Your task to perform on an android device: allow cookies in the chrome app Image 0: 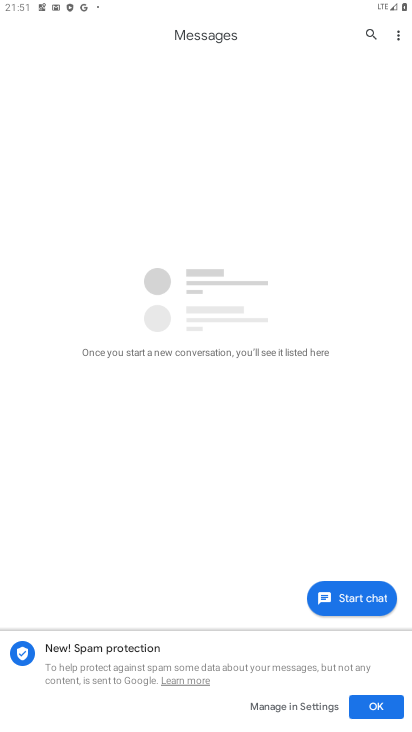
Step 0: press home button
Your task to perform on an android device: allow cookies in the chrome app Image 1: 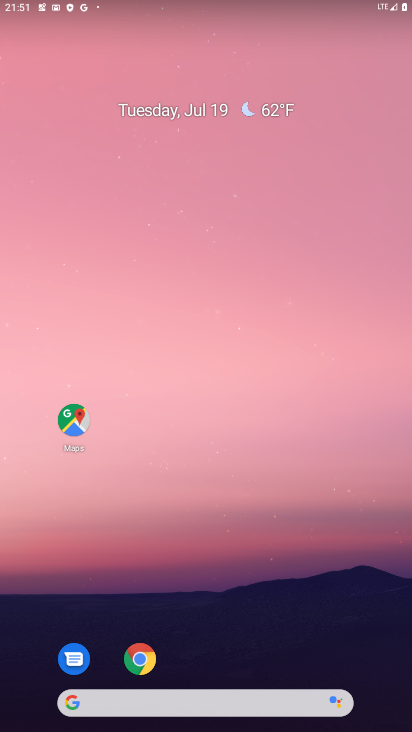
Step 1: drag from (180, 641) to (299, 63)
Your task to perform on an android device: allow cookies in the chrome app Image 2: 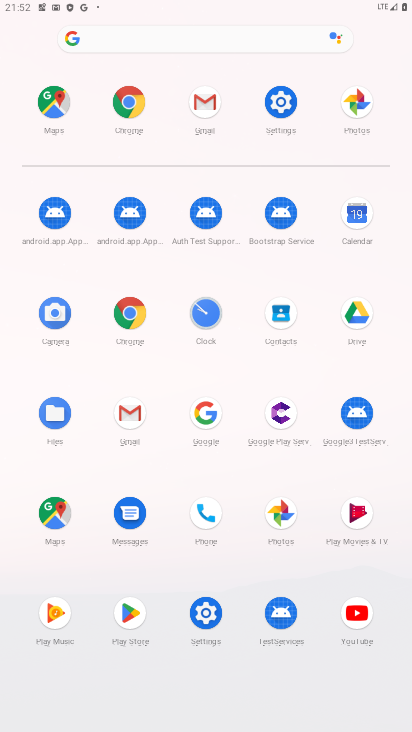
Step 2: click (132, 311)
Your task to perform on an android device: allow cookies in the chrome app Image 3: 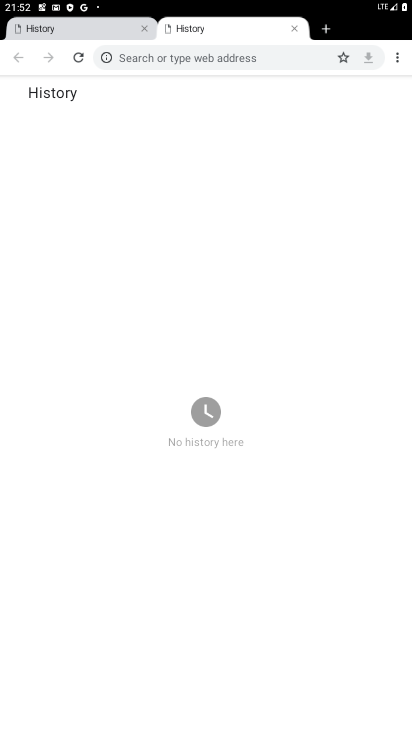
Step 3: click (13, 66)
Your task to perform on an android device: allow cookies in the chrome app Image 4: 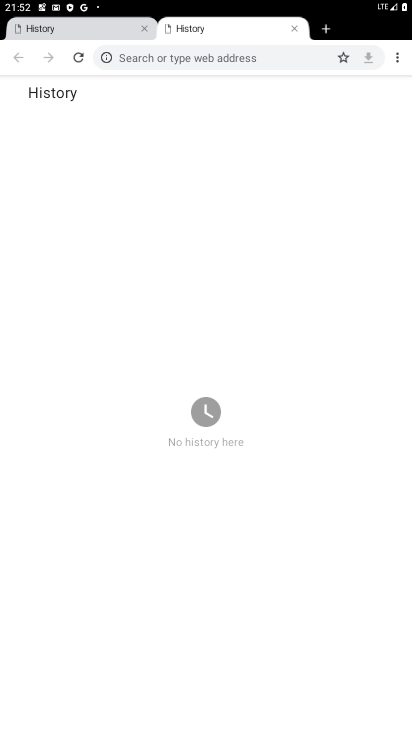
Step 4: press back button
Your task to perform on an android device: allow cookies in the chrome app Image 5: 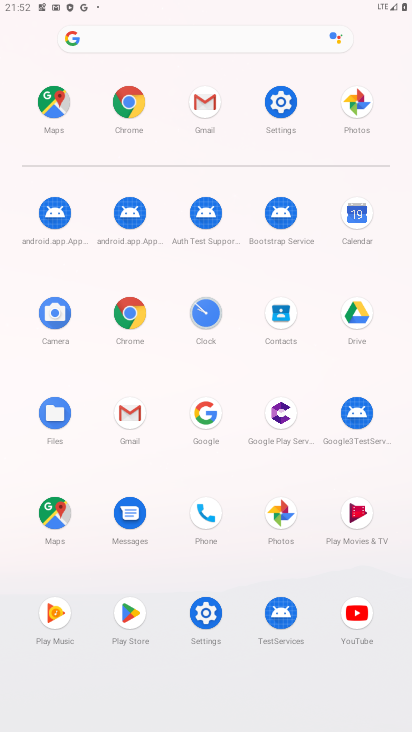
Step 5: click (135, 301)
Your task to perform on an android device: allow cookies in the chrome app Image 6: 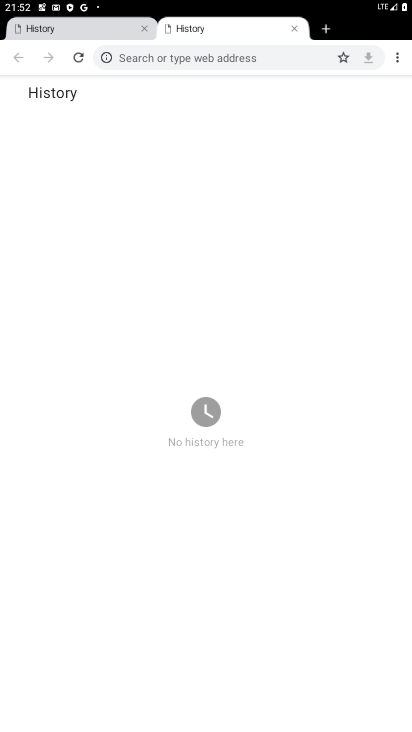
Step 6: click (293, 31)
Your task to perform on an android device: allow cookies in the chrome app Image 7: 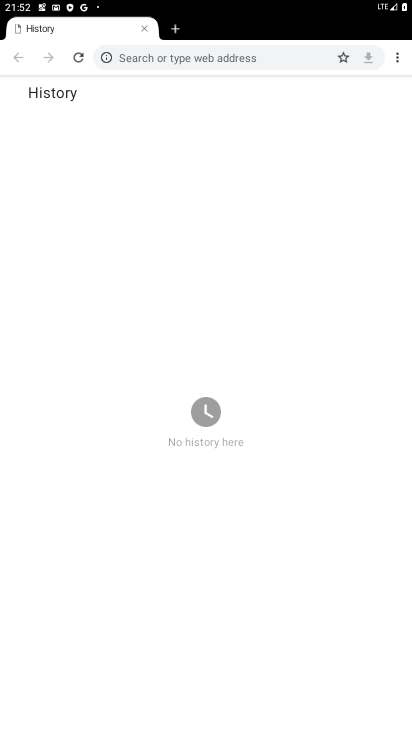
Step 7: drag from (394, 57) to (274, 307)
Your task to perform on an android device: allow cookies in the chrome app Image 8: 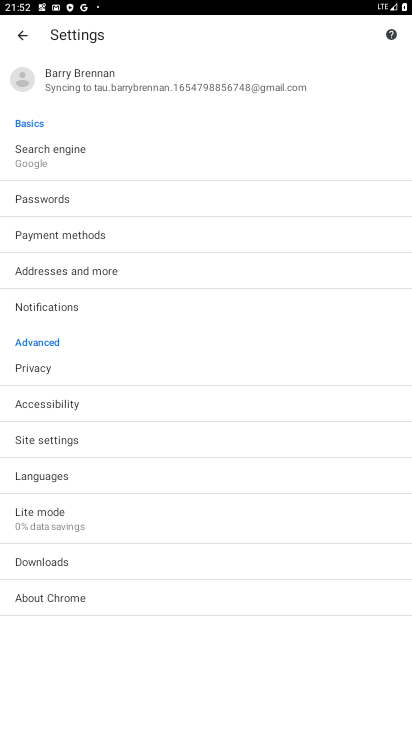
Step 8: click (52, 442)
Your task to perform on an android device: allow cookies in the chrome app Image 9: 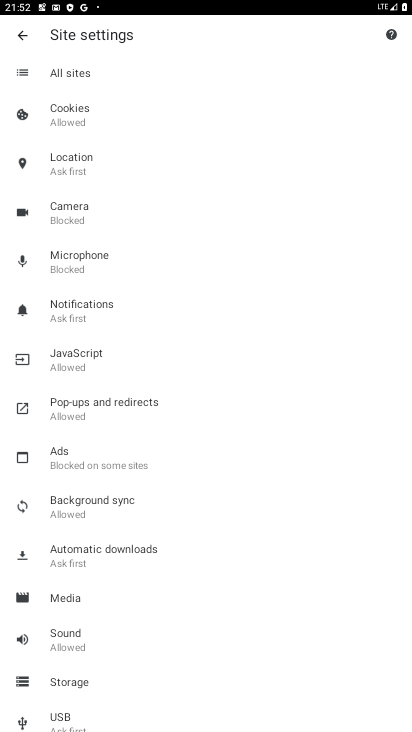
Step 9: click (59, 105)
Your task to perform on an android device: allow cookies in the chrome app Image 10: 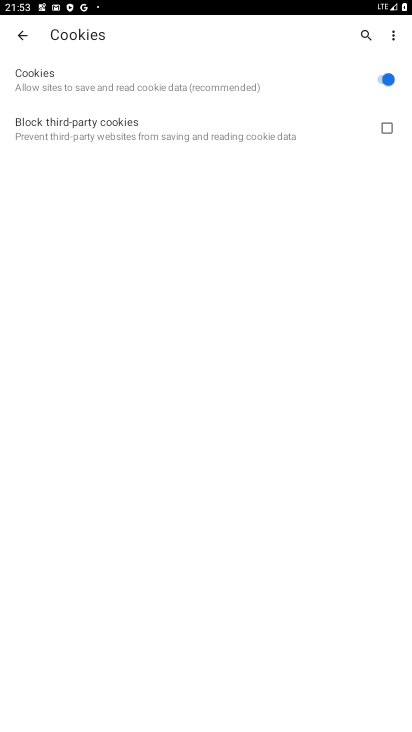
Step 10: task complete